Your task to perform on an android device: toggle javascript in the chrome app Image 0: 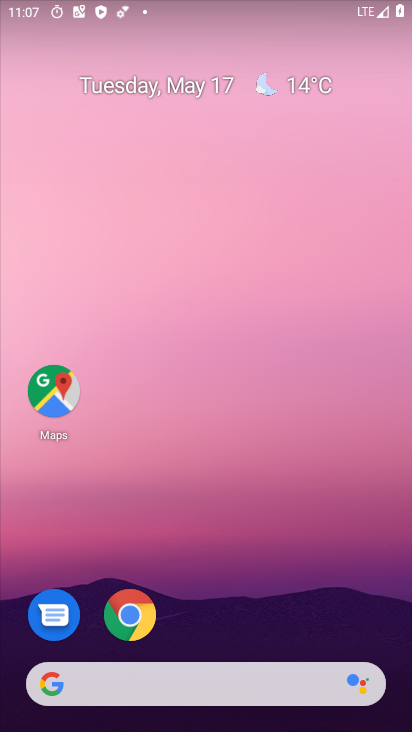
Step 0: press home button
Your task to perform on an android device: toggle javascript in the chrome app Image 1: 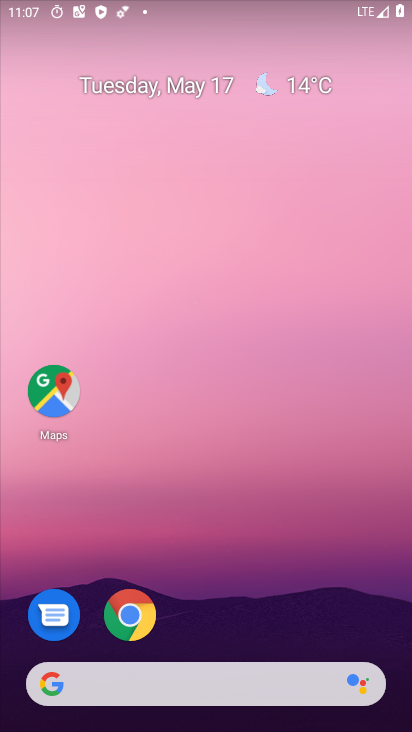
Step 1: drag from (115, 644) to (274, 136)
Your task to perform on an android device: toggle javascript in the chrome app Image 2: 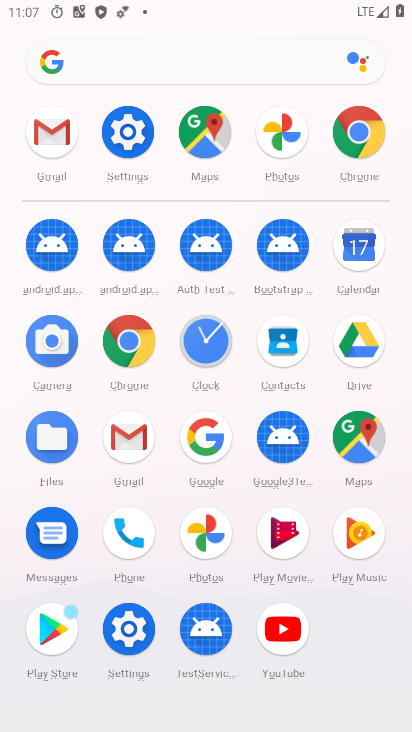
Step 2: click (363, 139)
Your task to perform on an android device: toggle javascript in the chrome app Image 3: 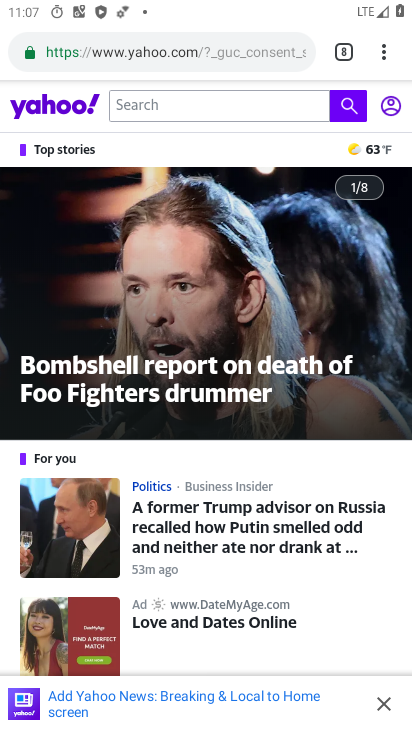
Step 3: drag from (380, 50) to (234, 639)
Your task to perform on an android device: toggle javascript in the chrome app Image 4: 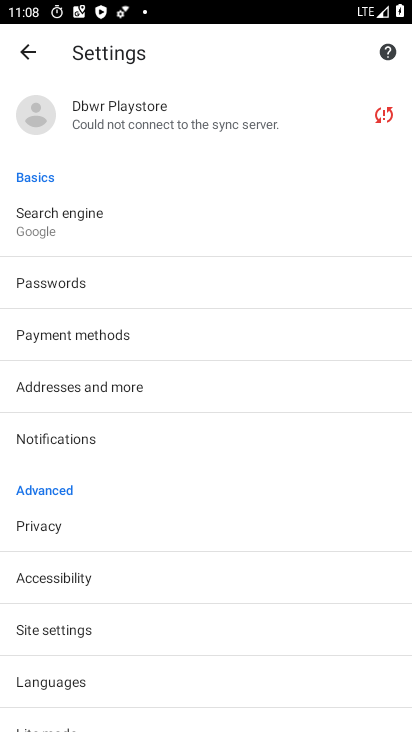
Step 4: drag from (146, 669) to (247, 433)
Your task to perform on an android device: toggle javascript in the chrome app Image 5: 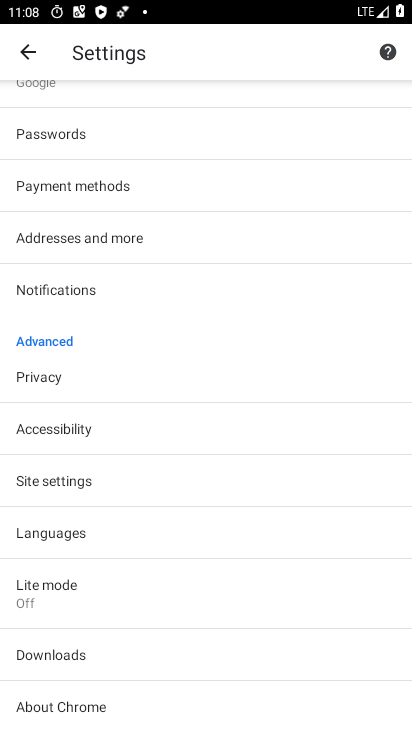
Step 5: click (72, 475)
Your task to perform on an android device: toggle javascript in the chrome app Image 6: 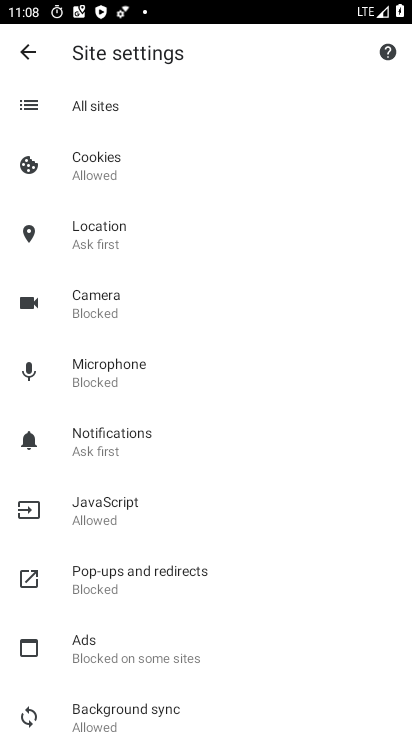
Step 6: click (132, 510)
Your task to perform on an android device: toggle javascript in the chrome app Image 7: 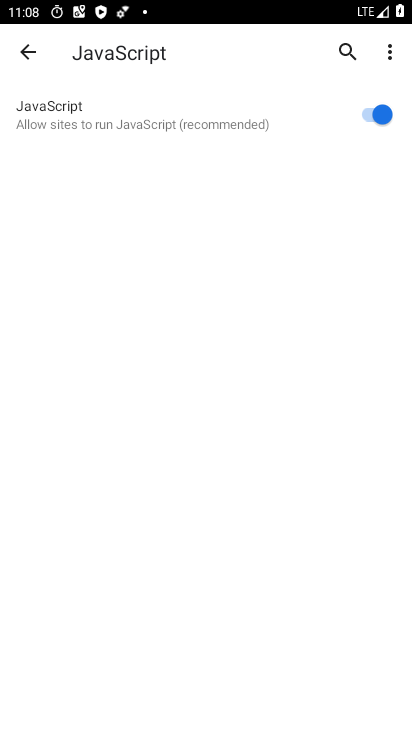
Step 7: click (371, 114)
Your task to perform on an android device: toggle javascript in the chrome app Image 8: 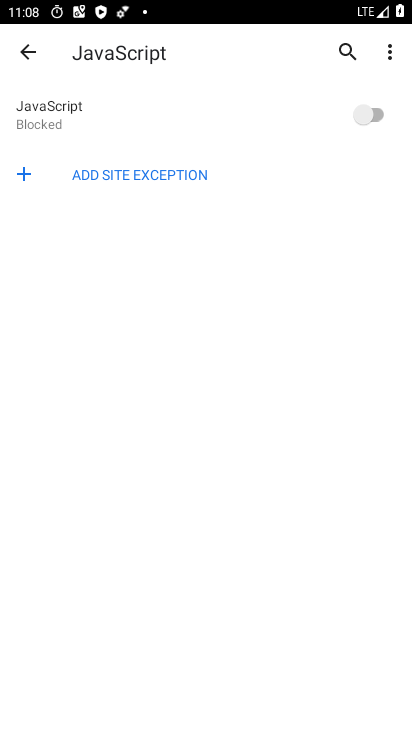
Step 8: task complete